Your task to perform on an android device: star an email in the gmail app Image 0: 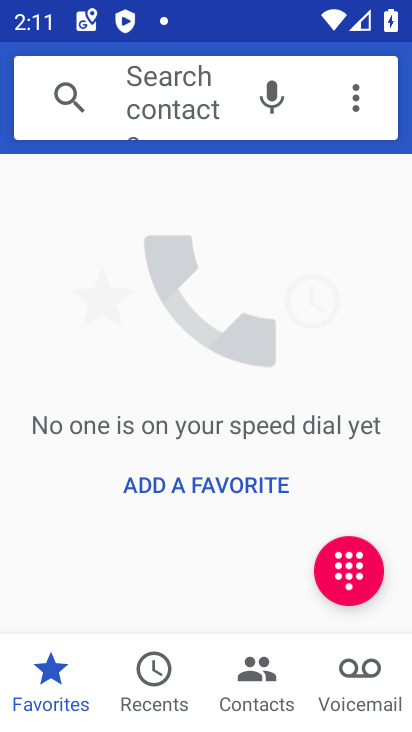
Step 0: drag from (356, 659) to (236, 153)
Your task to perform on an android device: star an email in the gmail app Image 1: 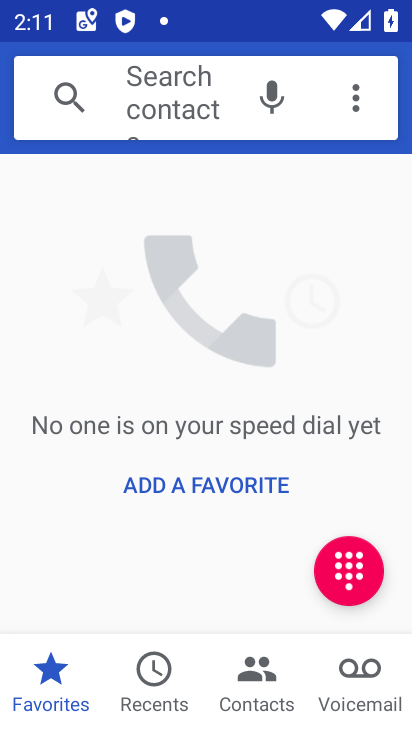
Step 1: press home button
Your task to perform on an android device: star an email in the gmail app Image 2: 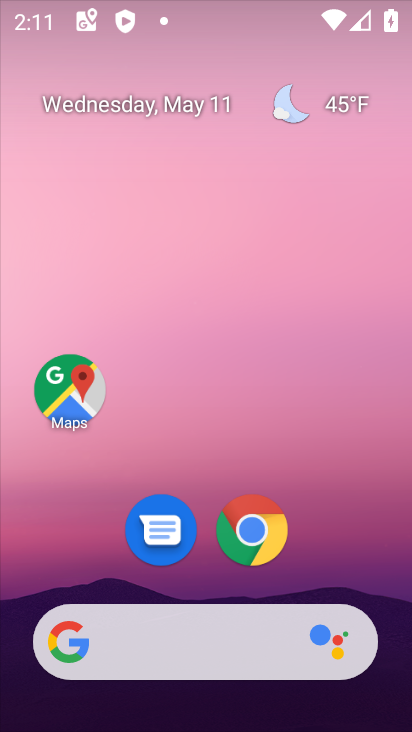
Step 2: drag from (312, 560) to (165, 125)
Your task to perform on an android device: star an email in the gmail app Image 3: 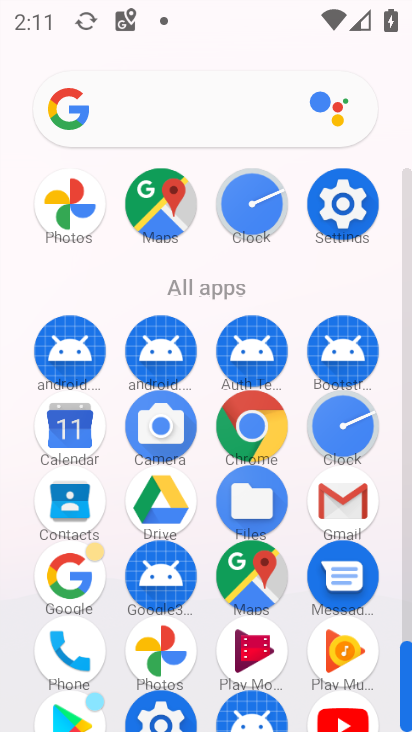
Step 3: click (345, 472)
Your task to perform on an android device: star an email in the gmail app Image 4: 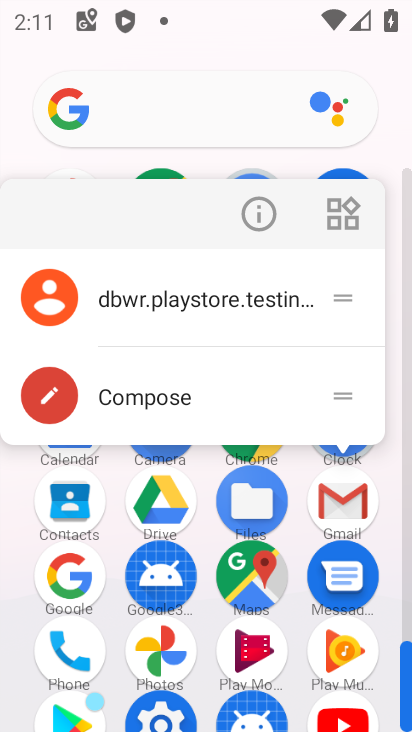
Step 4: click (166, 294)
Your task to perform on an android device: star an email in the gmail app Image 5: 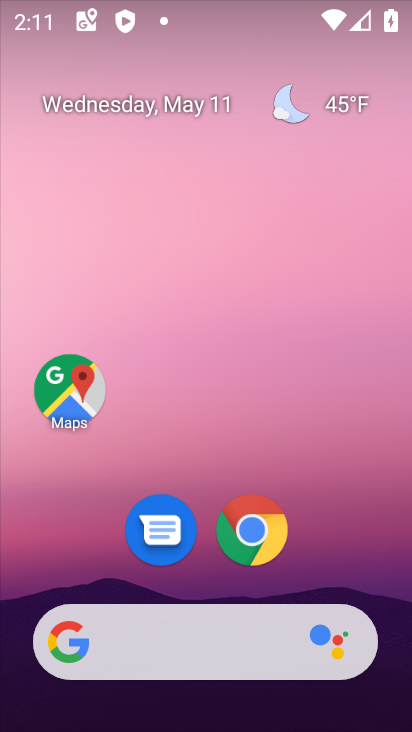
Step 5: drag from (392, 575) to (228, 204)
Your task to perform on an android device: star an email in the gmail app Image 6: 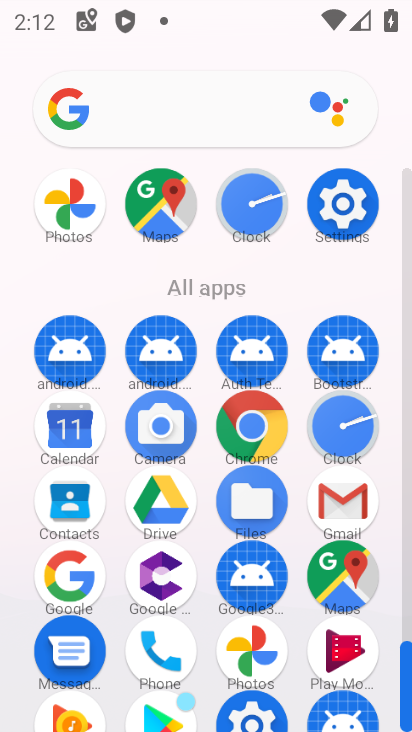
Step 6: click (346, 491)
Your task to perform on an android device: star an email in the gmail app Image 7: 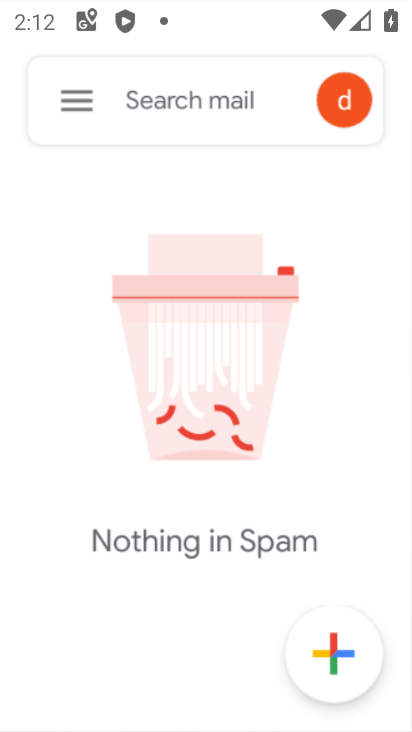
Step 7: click (328, 504)
Your task to perform on an android device: star an email in the gmail app Image 8: 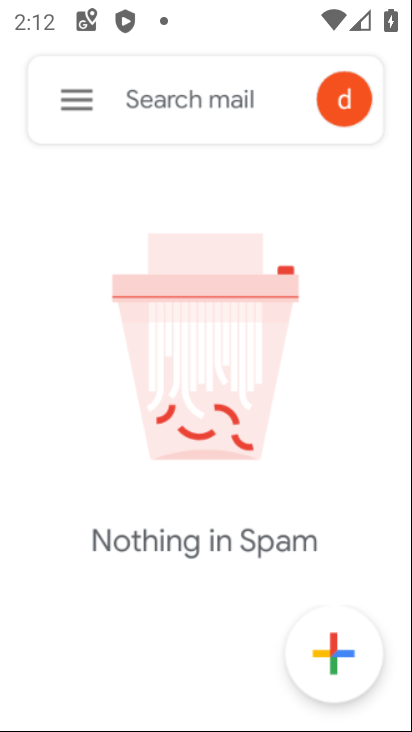
Step 8: click (330, 489)
Your task to perform on an android device: star an email in the gmail app Image 9: 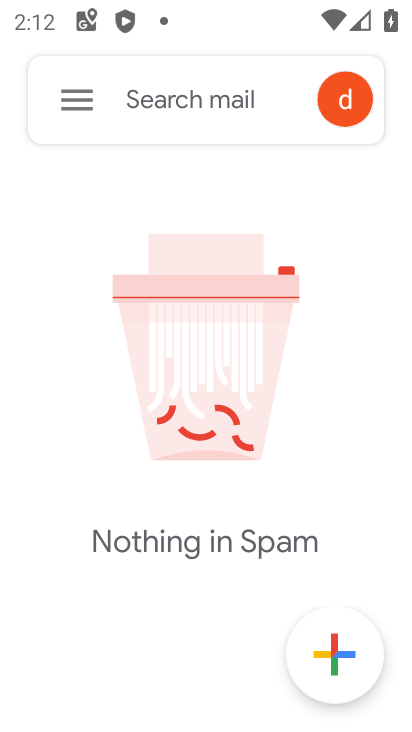
Step 9: click (78, 103)
Your task to perform on an android device: star an email in the gmail app Image 10: 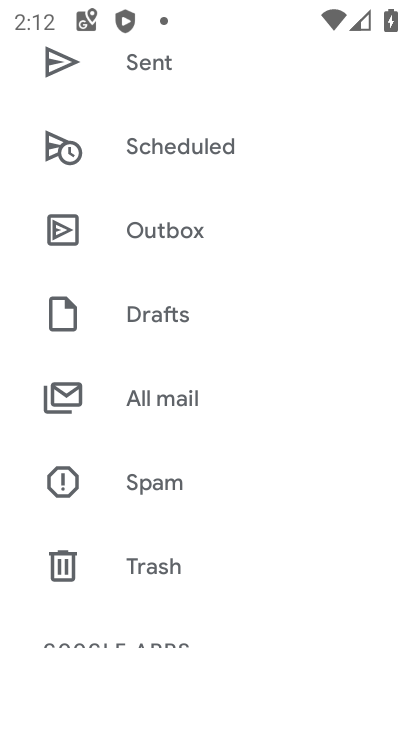
Step 10: click (153, 402)
Your task to perform on an android device: star an email in the gmail app Image 11: 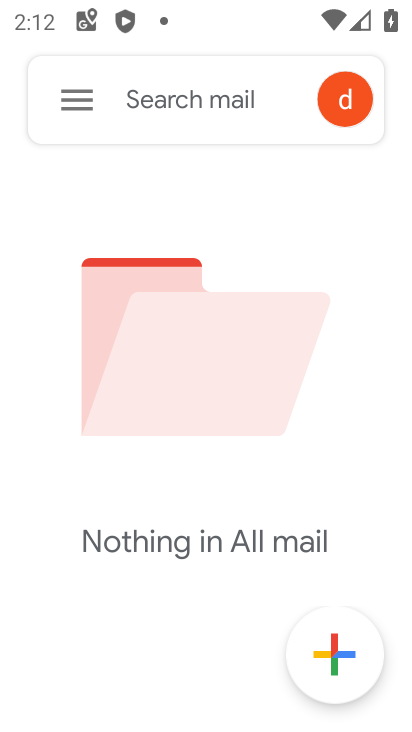
Step 11: click (70, 98)
Your task to perform on an android device: star an email in the gmail app Image 12: 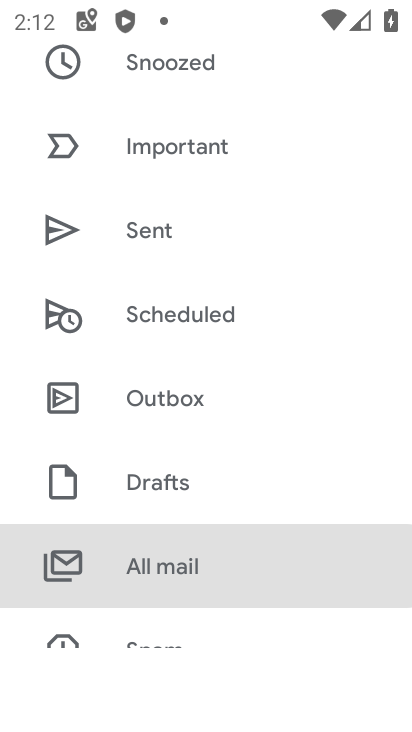
Step 12: drag from (177, 208) to (225, 559)
Your task to perform on an android device: star an email in the gmail app Image 13: 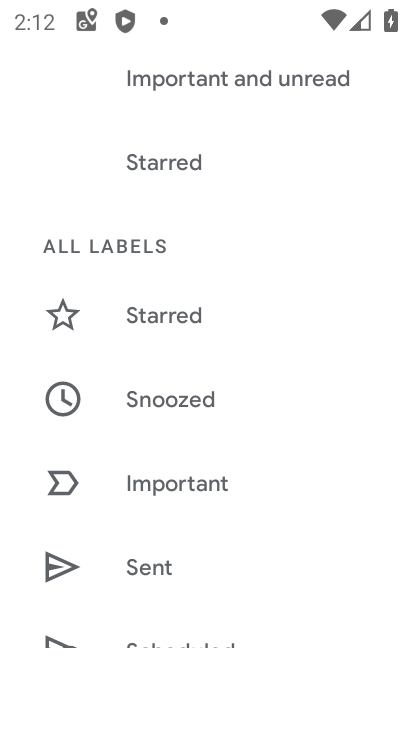
Step 13: click (149, 160)
Your task to perform on an android device: star an email in the gmail app Image 14: 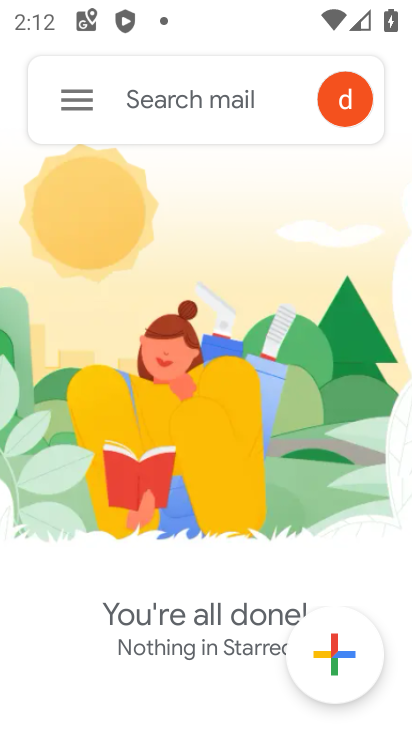
Step 14: task complete